Your task to perform on an android device: Open my contact list Image 0: 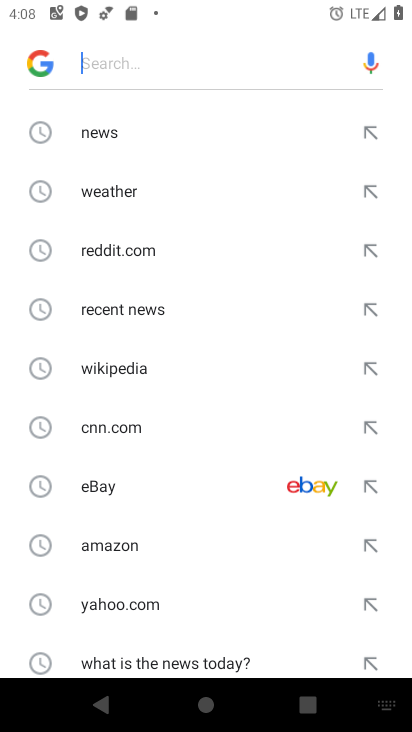
Step 0: press home button
Your task to perform on an android device: Open my contact list Image 1: 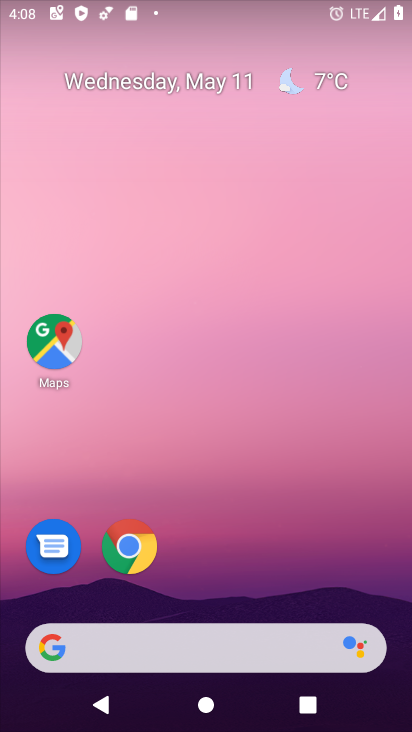
Step 1: drag from (207, 636) to (197, 16)
Your task to perform on an android device: Open my contact list Image 2: 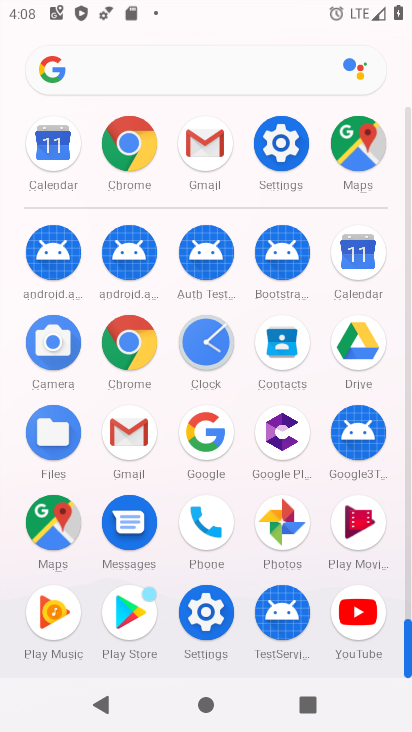
Step 2: click (283, 330)
Your task to perform on an android device: Open my contact list Image 3: 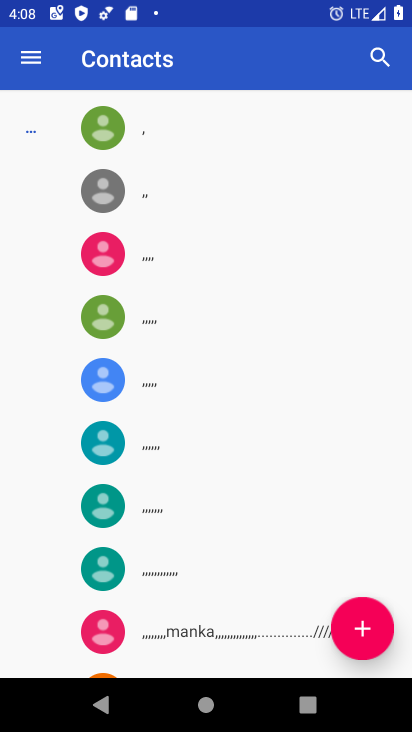
Step 3: task complete